Your task to perform on an android device: What's the weather today? Image 0: 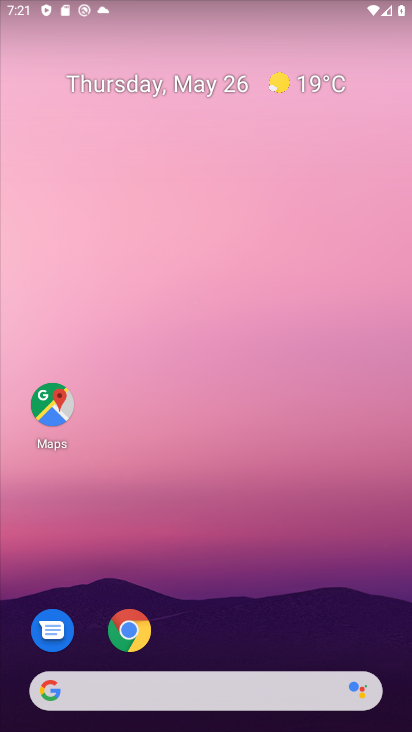
Step 0: drag from (254, 602) to (279, 161)
Your task to perform on an android device: What's the weather today? Image 1: 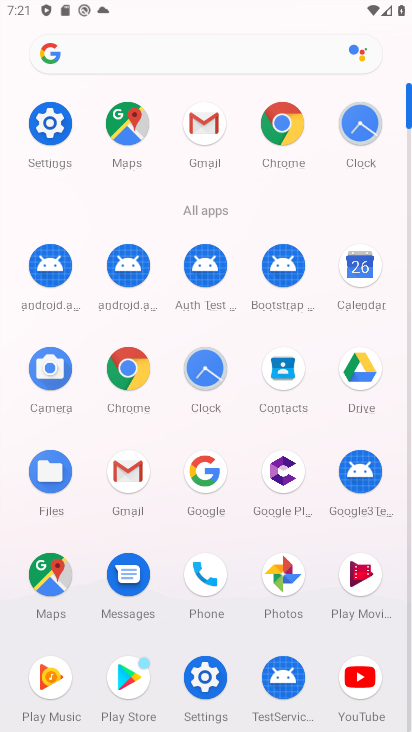
Step 1: click (202, 473)
Your task to perform on an android device: What's the weather today? Image 2: 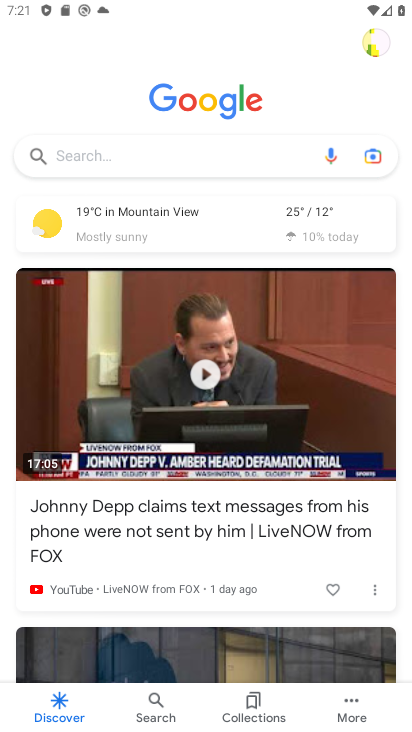
Step 2: click (275, 227)
Your task to perform on an android device: What's the weather today? Image 3: 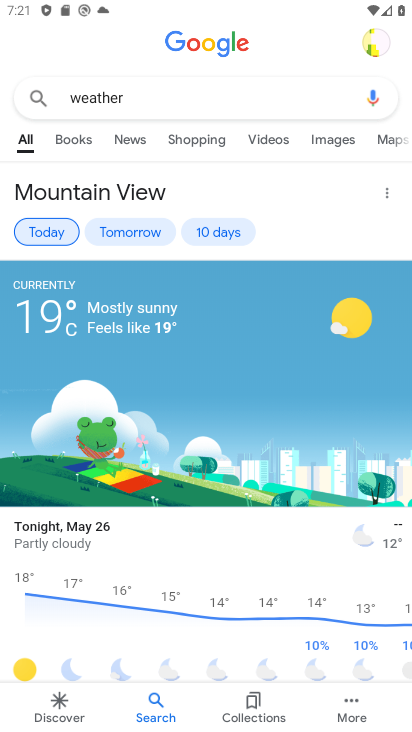
Step 3: task complete